Your task to perform on an android device: Show me recent news Image 0: 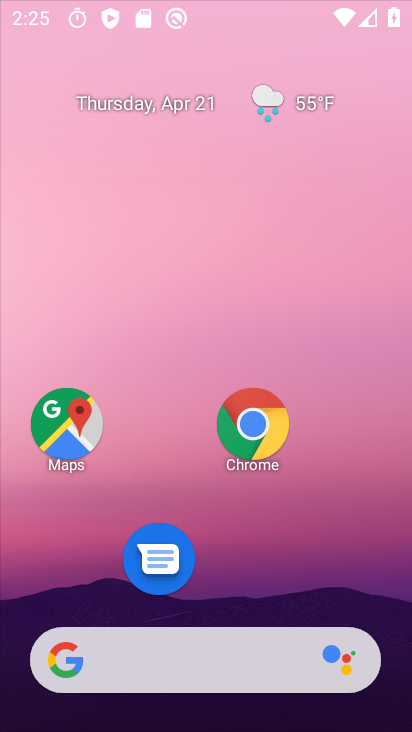
Step 0: drag from (286, 294) to (283, 166)
Your task to perform on an android device: Show me recent news Image 1: 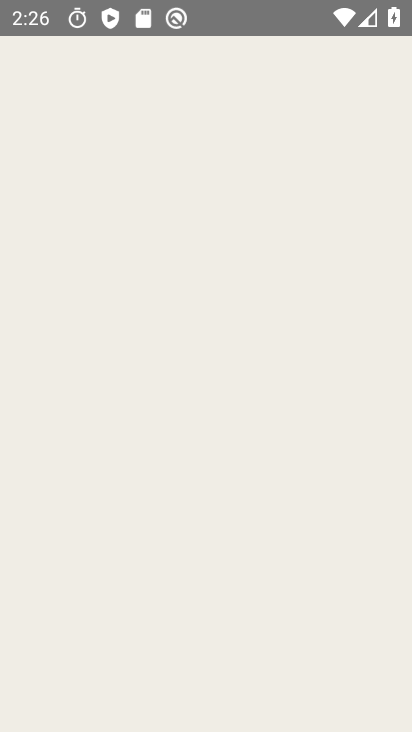
Step 1: press home button
Your task to perform on an android device: Show me recent news Image 2: 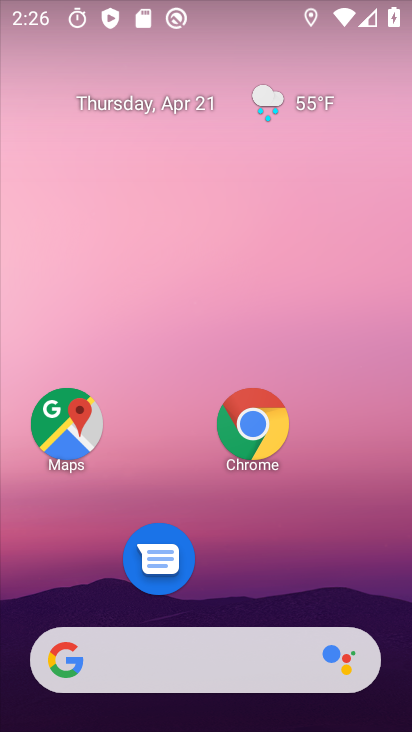
Step 2: drag from (280, 290) to (265, 47)
Your task to perform on an android device: Show me recent news Image 3: 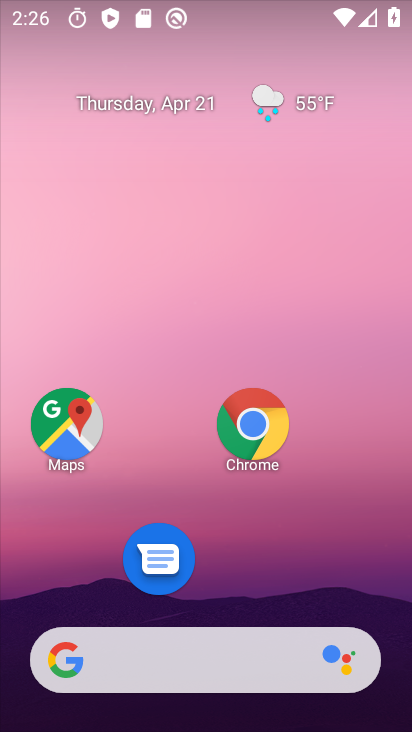
Step 3: drag from (234, 565) to (275, 28)
Your task to perform on an android device: Show me recent news Image 4: 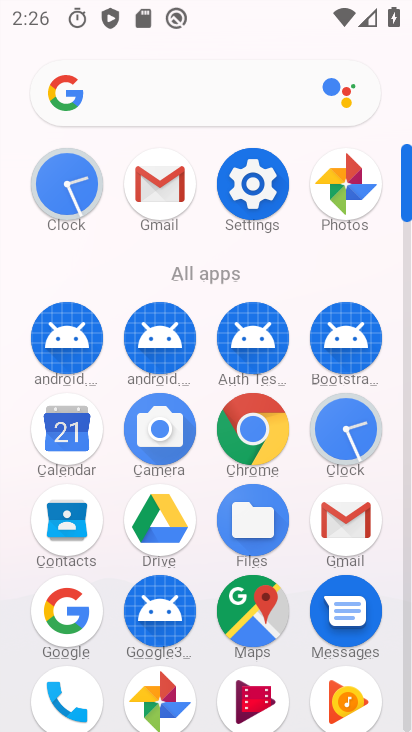
Step 4: click (68, 609)
Your task to perform on an android device: Show me recent news Image 5: 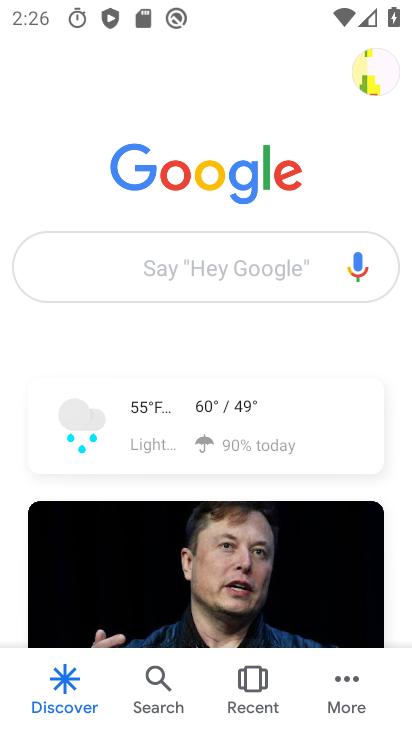
Step 5: click (177, 263)
Your task to perform on an android device: Show me recent news Image 6: 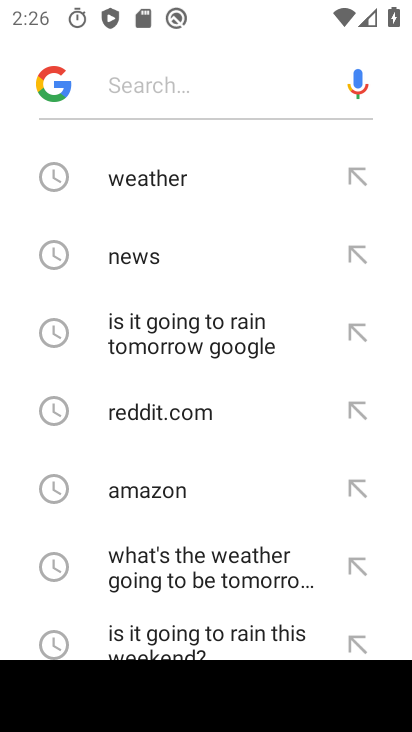
Step 6: type "recent news"
Your task to perform on an android device: Show me recent news Image 7: 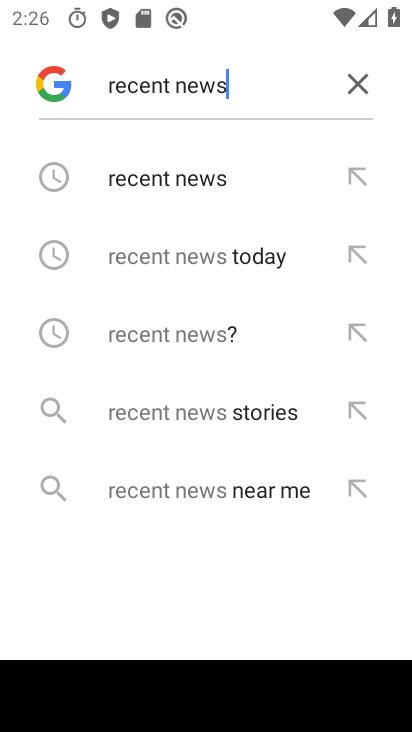
Step 7: click (138, 182)
Your task to perform on an android device: Show me recent news Image 8: 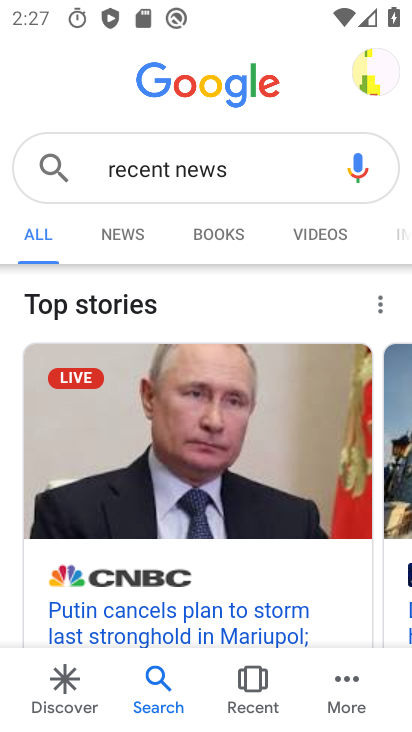
Step 8: task complete